Your task to perform on an android device: all mails in gmail Image 0: 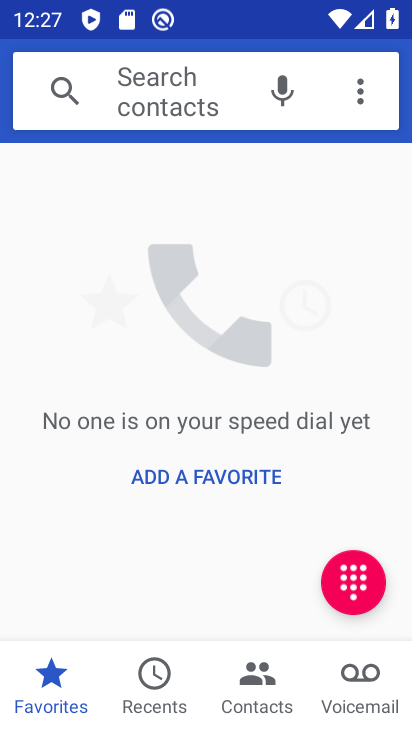
Step 0: press home button
Your task to perform on an android device: all mails in gmail Image 1: 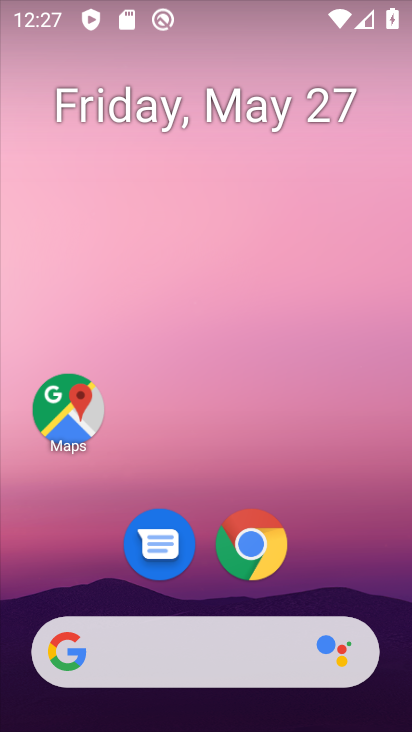
Step 1: drag from (232, 461) to (97, 23)
Your task to perform on an android device: all mails in gmail Image 2: 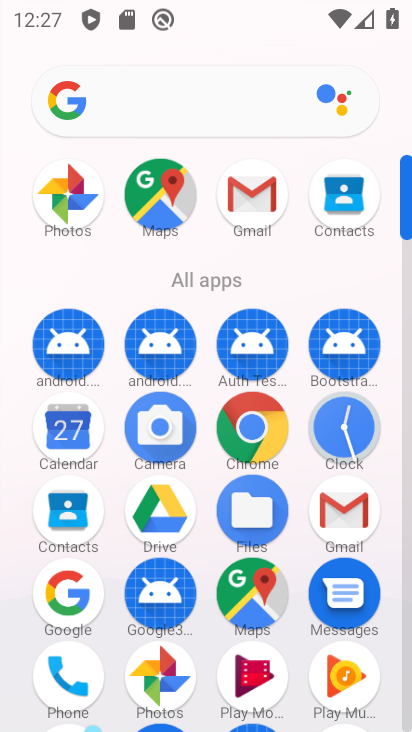
Step 2: click (239, 186)
Your task to perform on an android device: all mails in gmail Image 3: 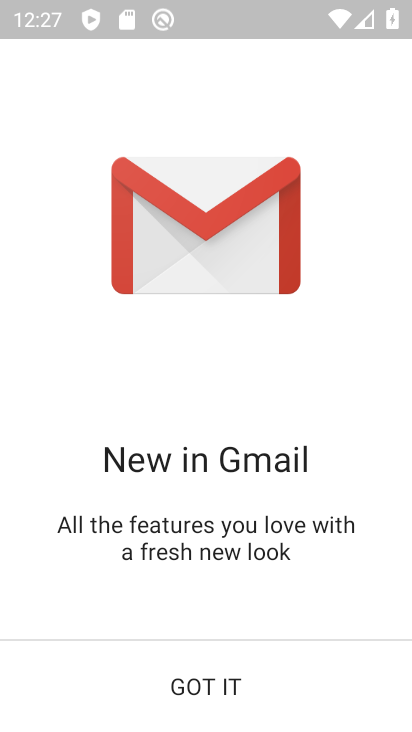
Step 3: click (213, 678)
Your task to perform on an android device: all mails in gmail Image 4: 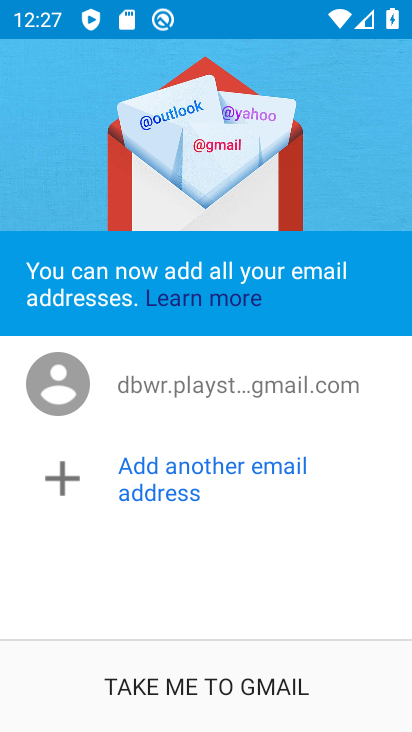
Step 4: click (224, 678)
Your task to perform on an android device: all mails in gmail Image 5: 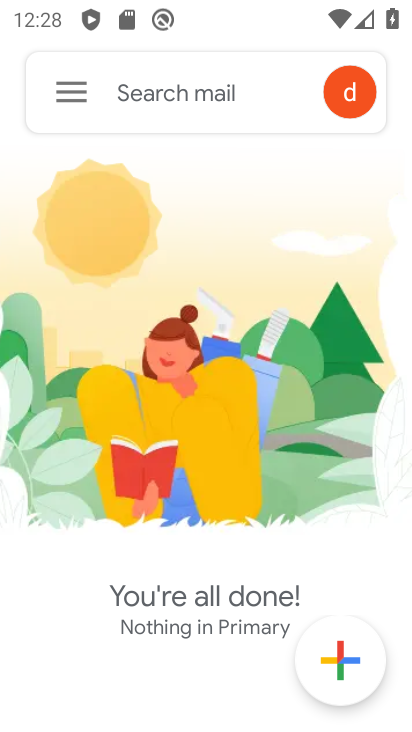
Step 5: click (65, 88)
Your task to perform on an android device: all mails in gmail Image 6: 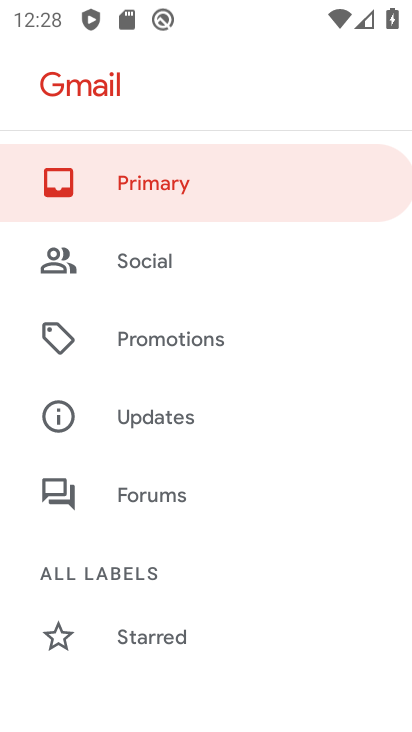
Step 6: drag from (211, 553) to (160, 296)
Your task to perform on an android device: all mails in gmail Image 7: 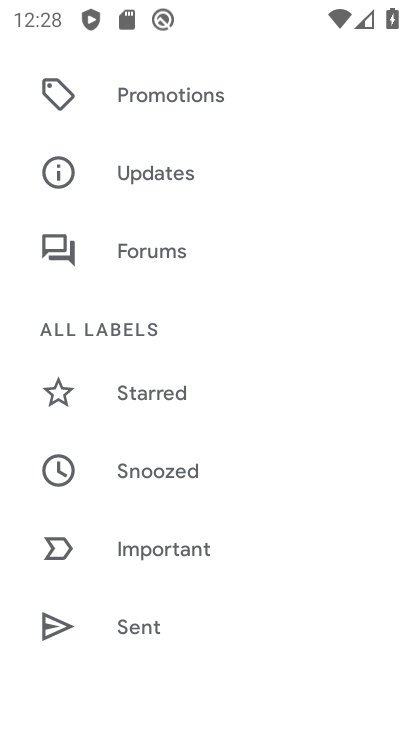
Step 7: drag from (254, 359) to (219, 124)
Your task to perform on an android device: all mails in gmail Image 8: 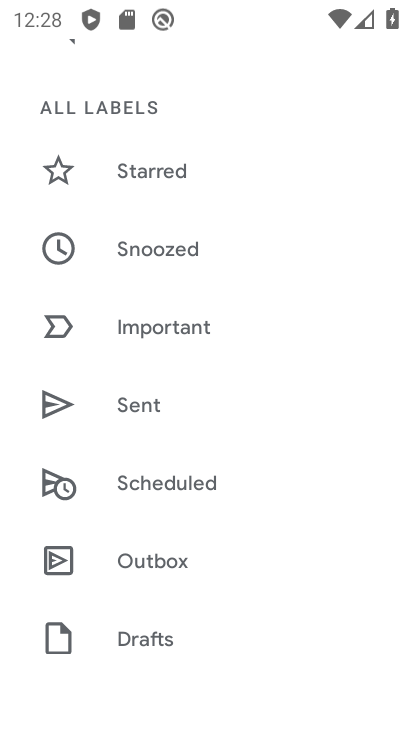
Step 8: drag from (207, 549) to (204, 328)
Your task to perform on an android device: all mails in gmail Image 9: 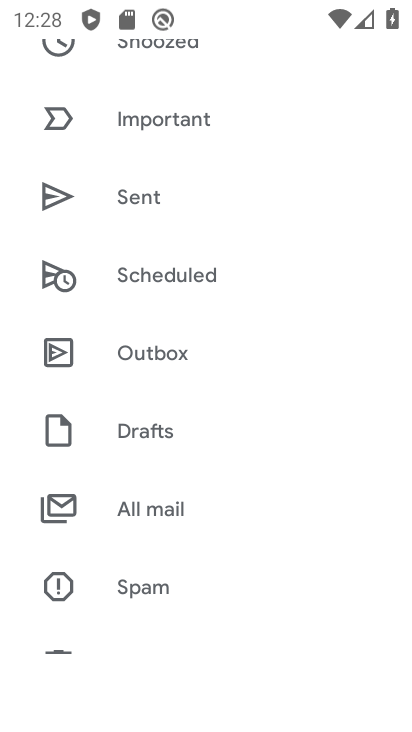
Step 9: click (143, 505)
Your task to perform on an android device: all mails in gmail Image 10: 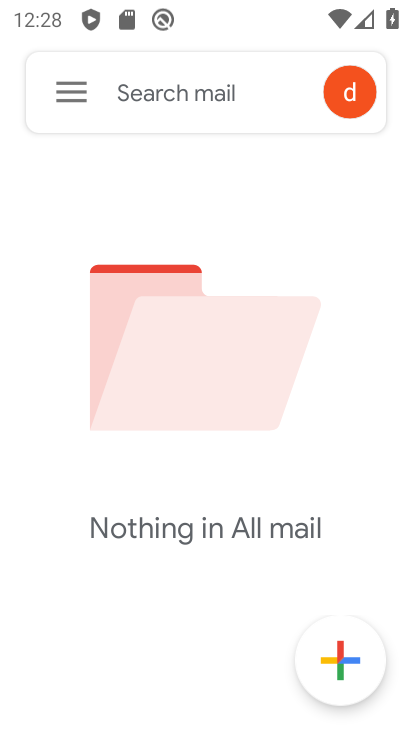
Step 10: task complete